Your task to perform on an android device: Open settings on Google Maps Image 0: 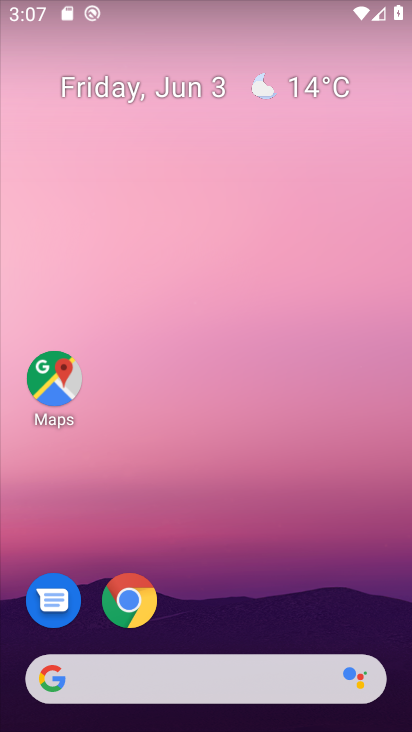
Step 0: click (46, 383)
Your task to perform on an android device: Open settings on Google Maps Image 1: 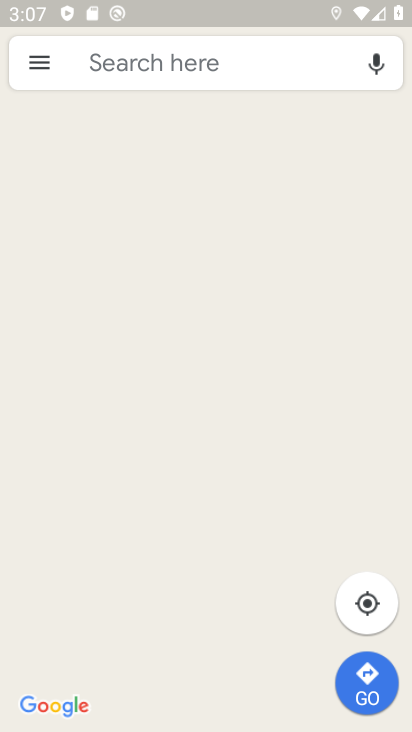
Step 1: click (49, 52)
Your task to perform on an android device: Open settings on Google Maps Image 2: 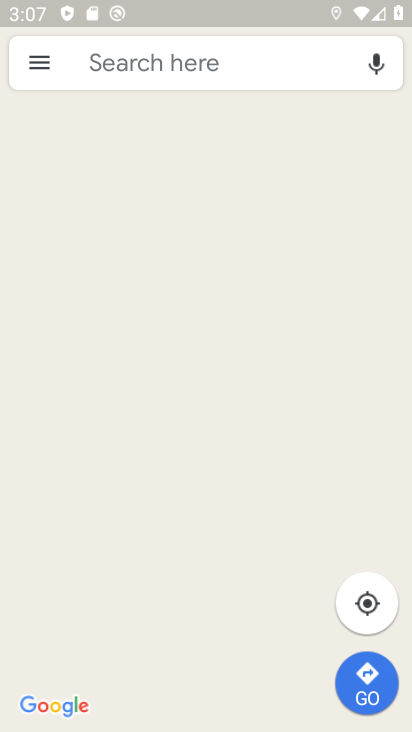
Step 2: click (35, 56)
Your task to perform on an android device: Open settings on Google Maps Image 3: 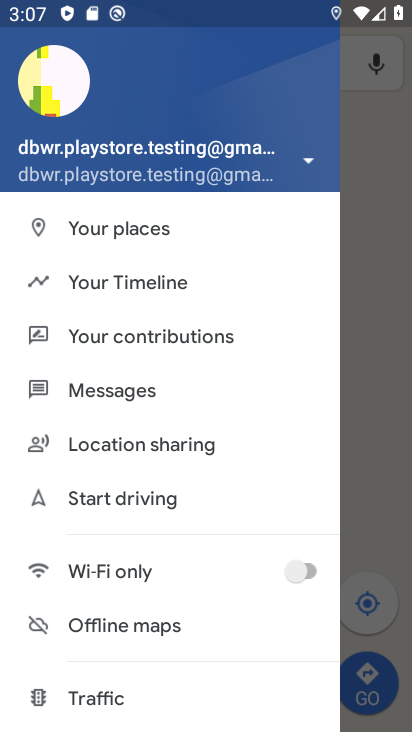
Step 3: drag from (148, 561) to (153, 280)
Your task to perform on an android device: Open settings on Google Maps Image 4: 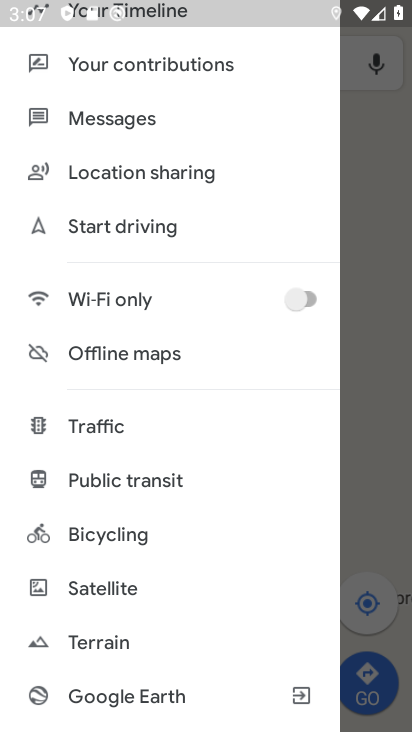
Step 4: drag from (119, 580) to (145, 250)
Your task to perform on an android device: Open settings on Google Maps Image 5: 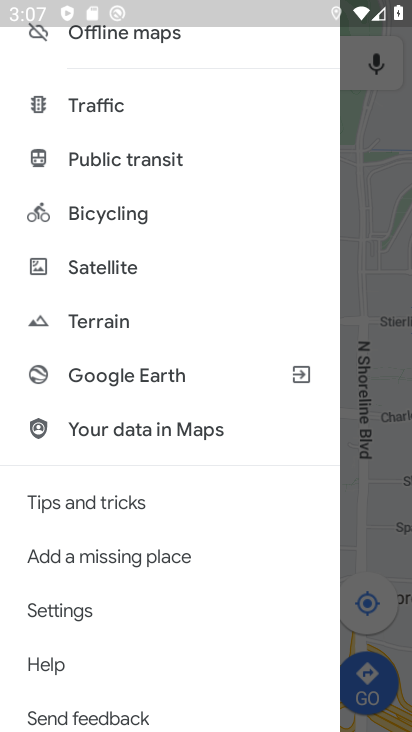
Step 5: click (67, 617)
Your task to perform on an android device: Open settings on Google Maps Image 6: 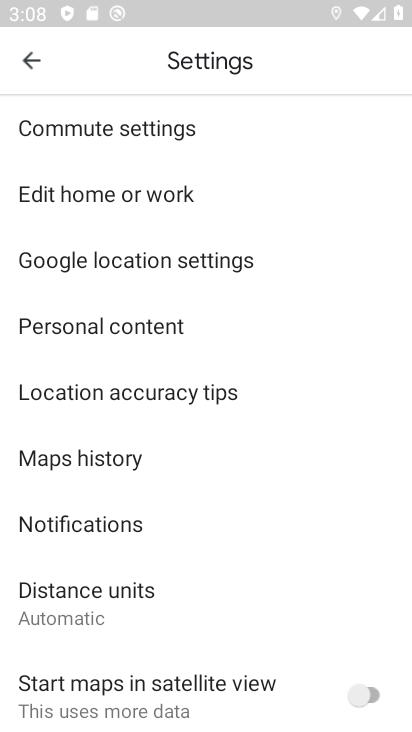
Step 6: task complete